Your task to perform on an android device: open a new tab in the chrome app Image 0: 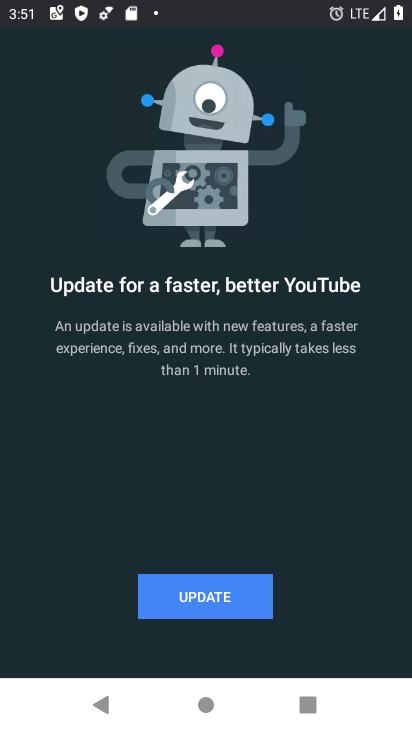
Step 0: click (242, 597)
Your task to perform on an android device: open a new tab in the chrome app Image 1: 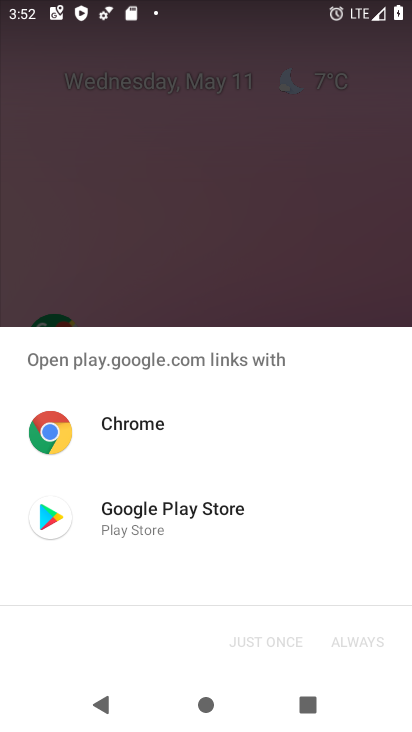
Step 1: click (241, 226)
Your task to perform on an android device: open a new tab in the chrome app Image 2: 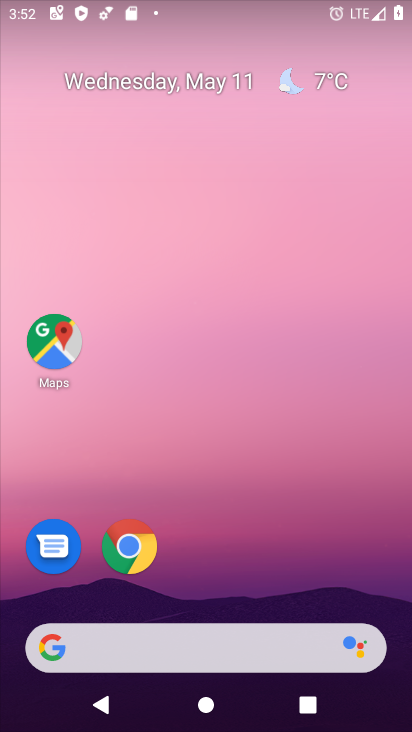
Step 2: drag from (226, 707) to (250, 71)
Your task to perform on an android device: open a new tab in the chrome app Image 3: 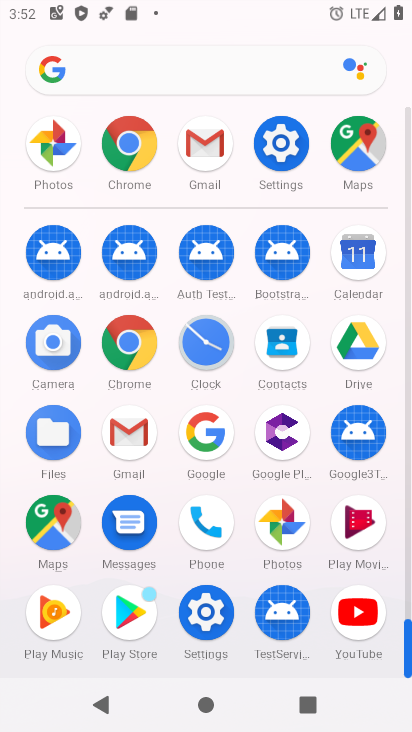
Step 3: click (139, 356)
Your task to perform on an android device: open a new tab in the chrome app Image 4: 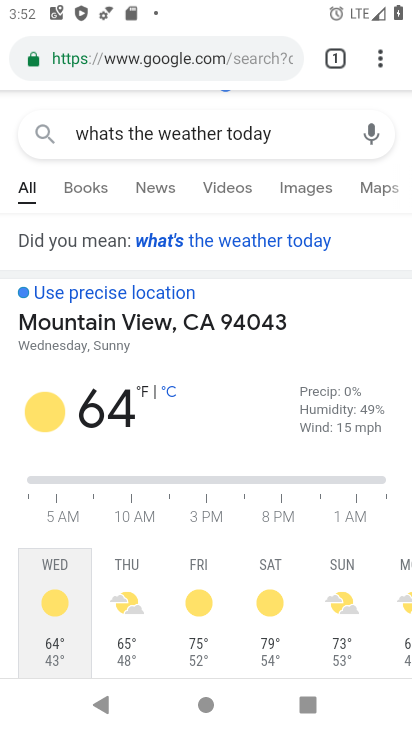
Step 4: task complete